Your task to perform on an android device: Open Google Maps and go to "Timeline" Image 0: 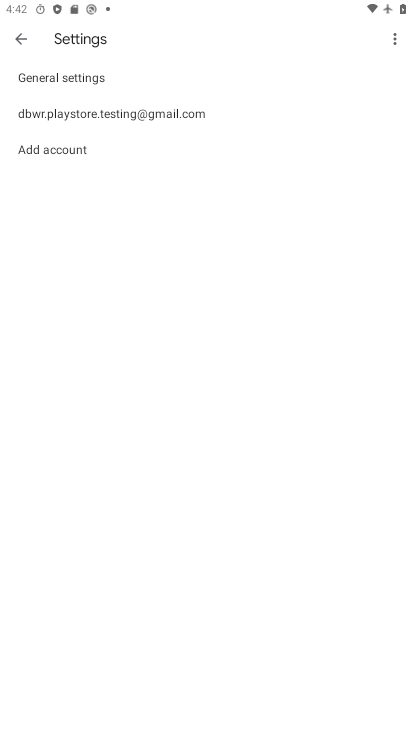
Step 0: press home button
Your task to perform on an android device: Open Google Maps and go to "Timeline" Image 1: 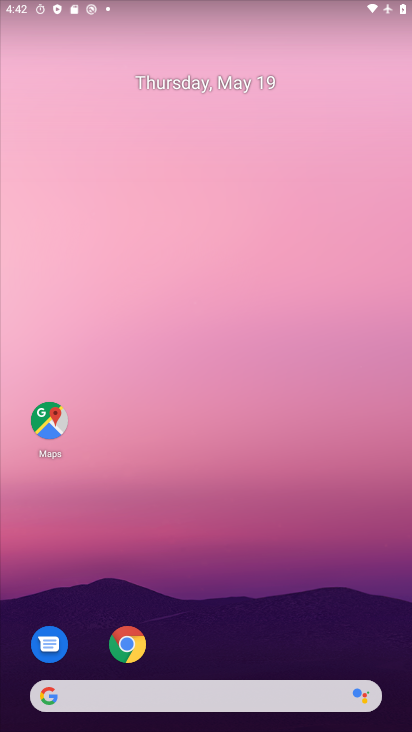
Step 1: drag from (114, 678) to (144, 291)
Your task to perform on an android device: Open Google Maps and go to "Timeline" Image 2: 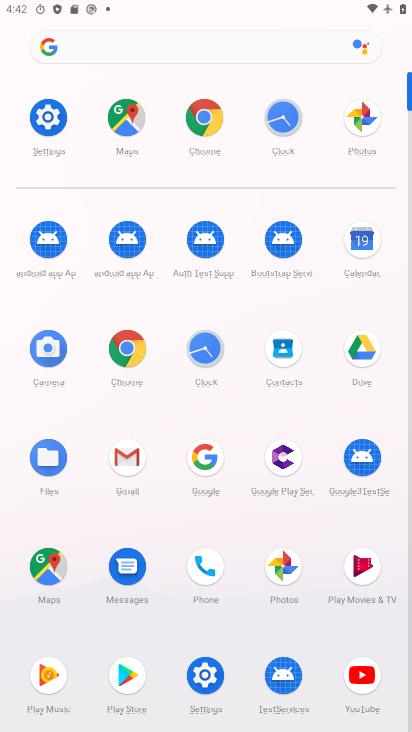
Step 2: click (49, 564)
Your task to perform on an android device: Open Google Maps and go to "Timeline" Image 3: 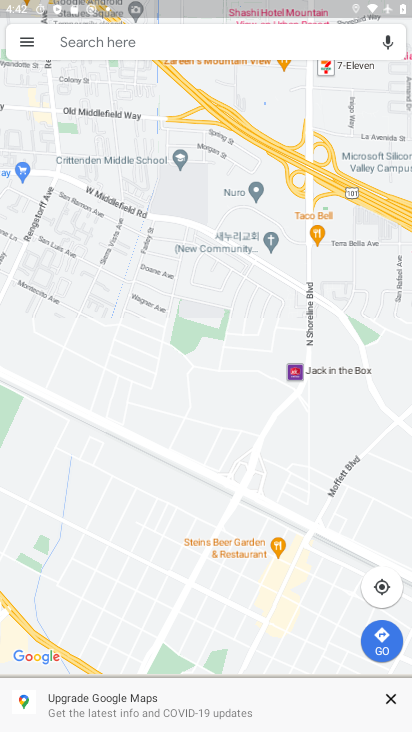
Step 3: click (30, 42)
Your task to perform on an android device: Open Google Maps and go to "Timeline" Image 4: 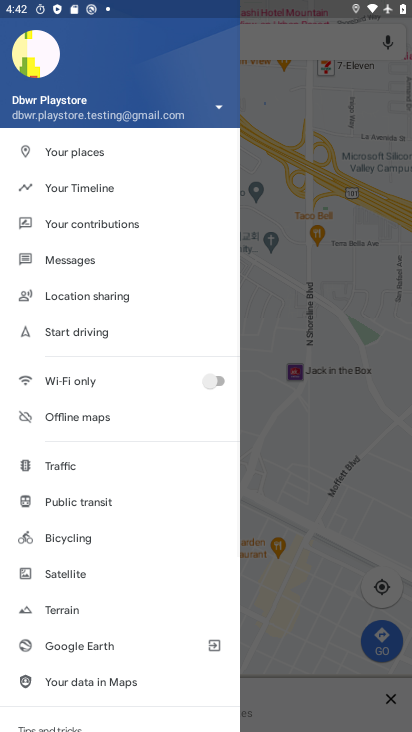
Step 4: click (58, 180)
Your task to perform on an android device: Open Google Maps and go to "Timeline" Image 5: 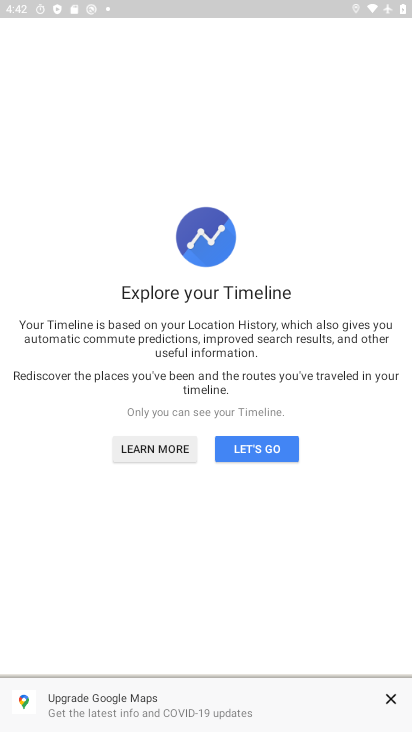
Step 5: click (252, 455)
Your task to perform on an android device: Open Google Maps and go to "Timeline" Image 6: 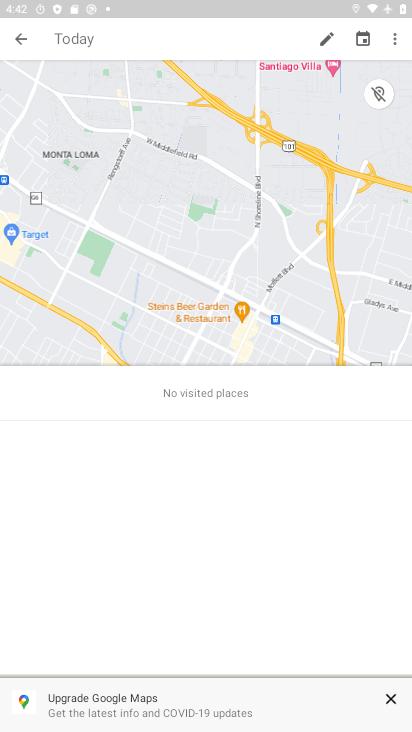
Step 6: task complete